Your task to perform on an android device: open sync settings in chrome Image 0: 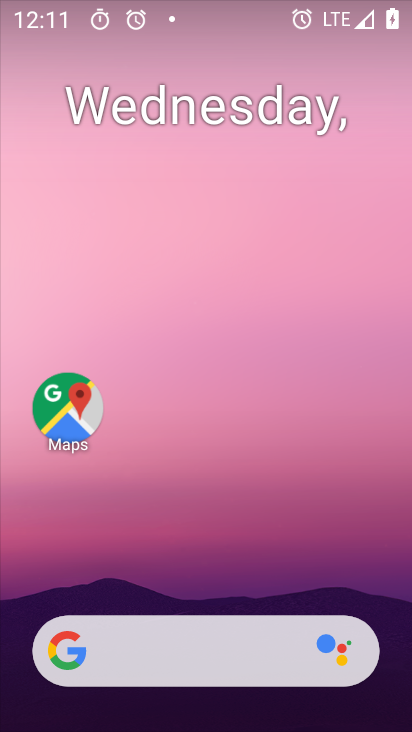
Step 0: drag from (239, 634) to (192, 218)
Your task to perform on an android device: open sync settings in chrome Image 1: 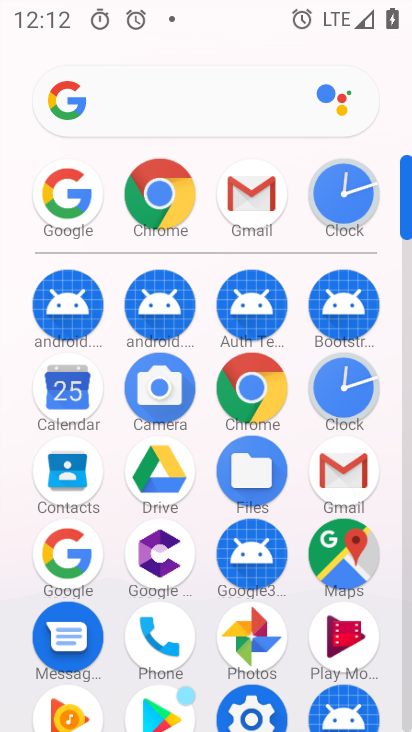
Step 1: click (169, 189)
Your task to perform on an android device: open sync settings in chrome Image 2: 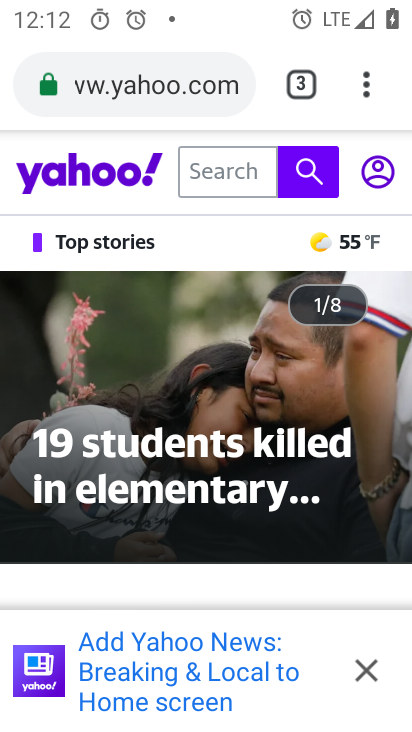
Step 2: drag from (369, 81) to (121, 589)
Your task to perform on an android device: open sync settings in chrome Image 3: 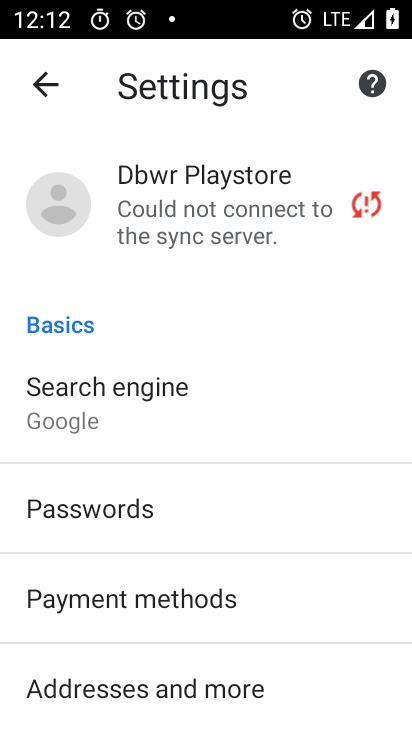
Step 3: click (251, 210)
Your task to perform on an android device: open sync settings in chrome Image 4: 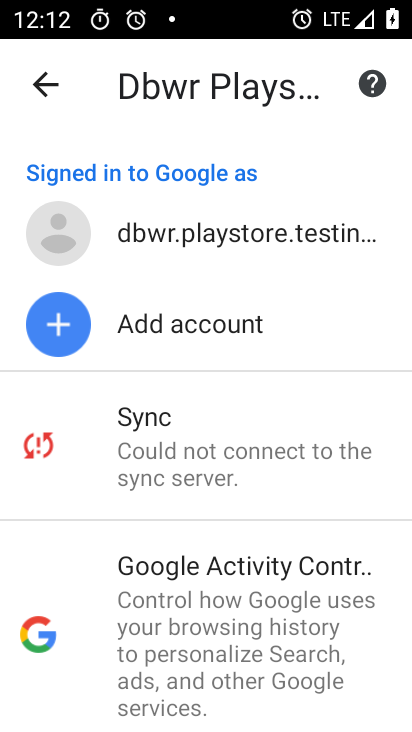
Step 4: click (251, 210)
Your task to perform on an android device: open sync settings in chrome Image 5: 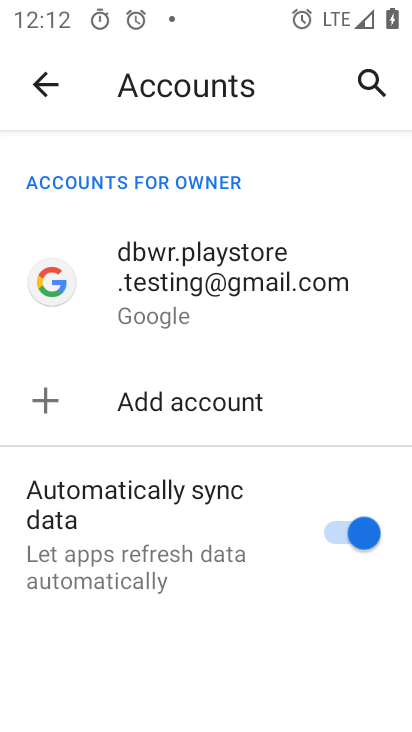
Step 5: task complete